Your task to perform on an android device: toggle translation in the chrome app Image 0: 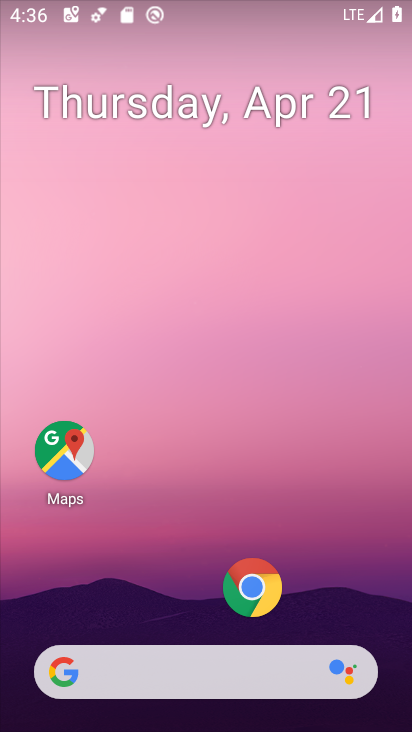
Step 0: click (264, 594)
Your task to perform on an android device: toggle translation in the chrome app Image 1: 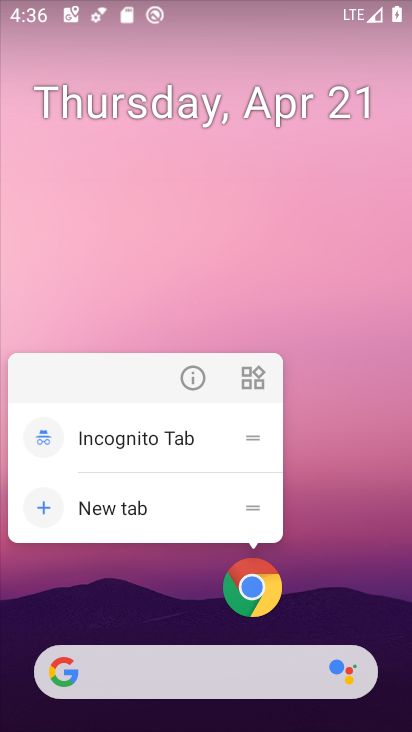
Step 1: click (262, 590)
Your task to perform on an android device: toggle translation in the chrome app Image 2: 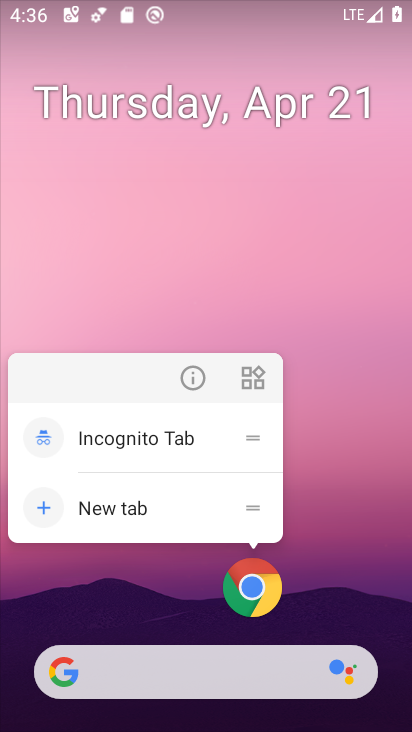
Step 2: click (243, 584)
Your task to perform on an android device: toggle translation in the chrome app Image 3: 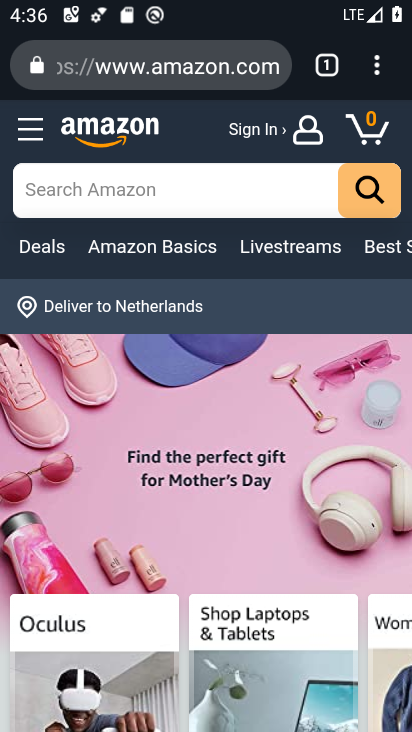
Step 3: drag from (373, 80) to (217, 643)
Your task to perform on an android device: toggle translation in the chrome app Image 4: 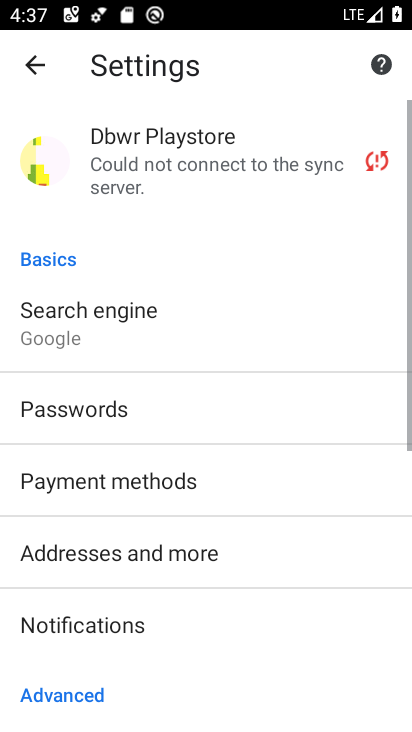
Step 4: drag from (243, 575) to (363, 180)
Your task to perform on an android device: toggle translation in the chrome app Image 5: 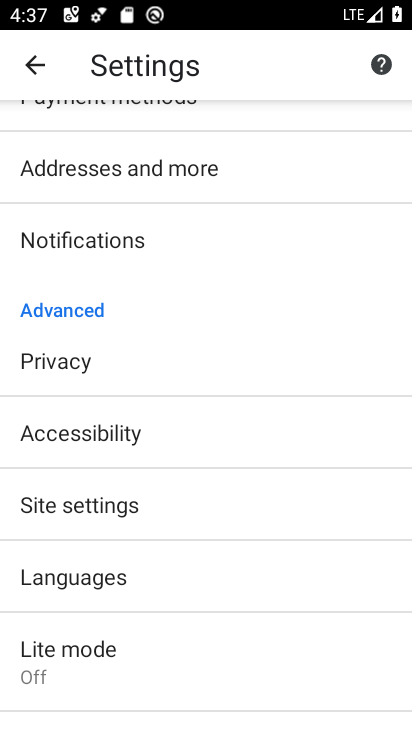
Step 5: click (161, 581)
Your task to perform on an android device: toggle translation in the chrome app Image 6: 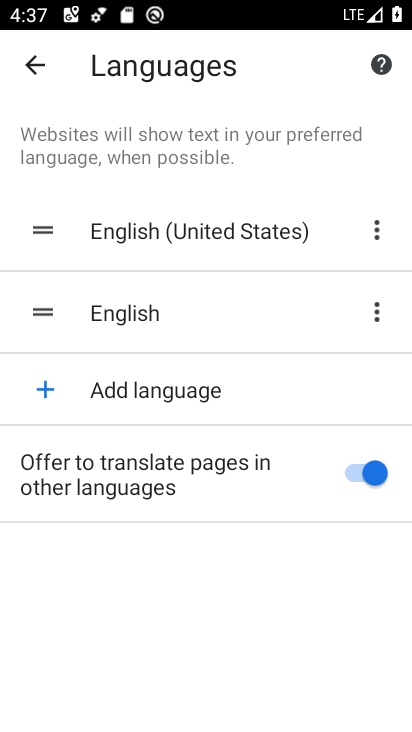
Step 6: click (338, 472)
Your task to perform on an android device: toggle translation in the chrome app Image 7: 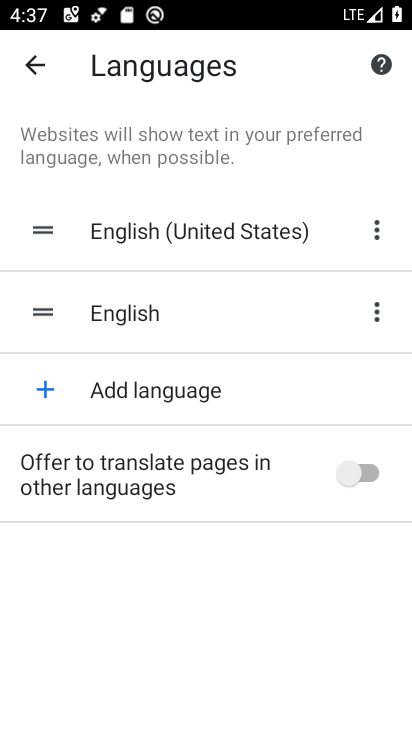
Step 7: task complete